Your task to perform on an android device: How much does a 3 bedroom apartment rent for in Chicago? Image 0: 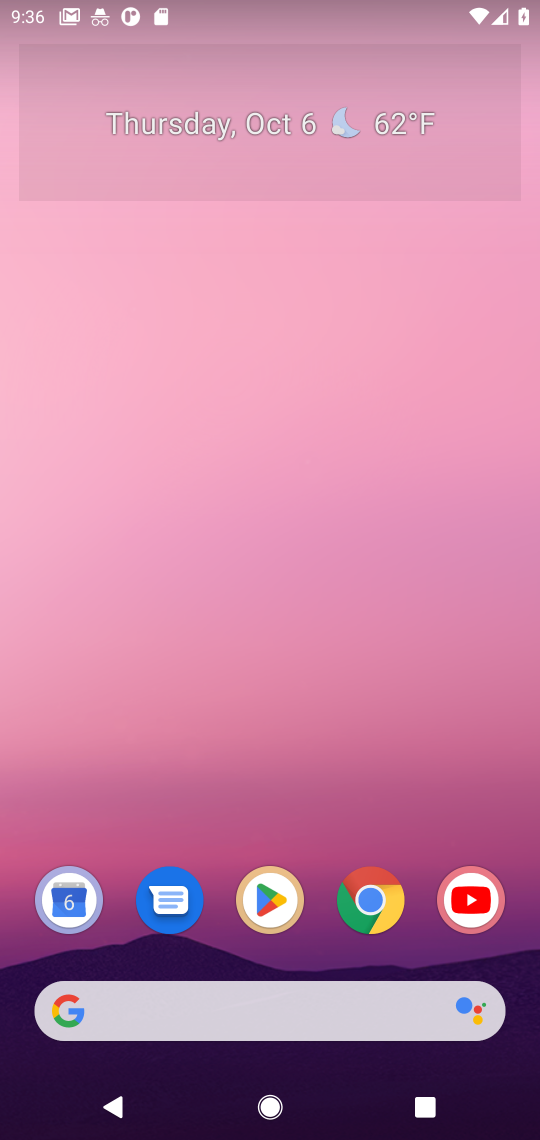
Step 0: press home button
Your task to perform on an android device: How much does a 3 bedroom apartment rent for in Chicago? Image 1: 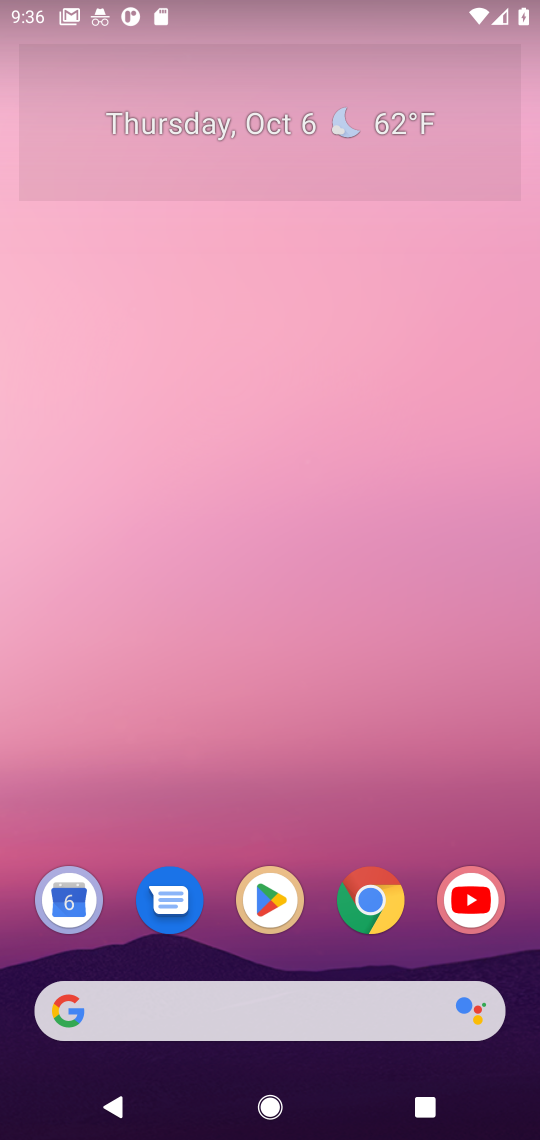
Step 1: click (252, 1021)
Your task to perform on an android device: How much does a 3 bedroom apartment rent for in Chicago? Image 2: 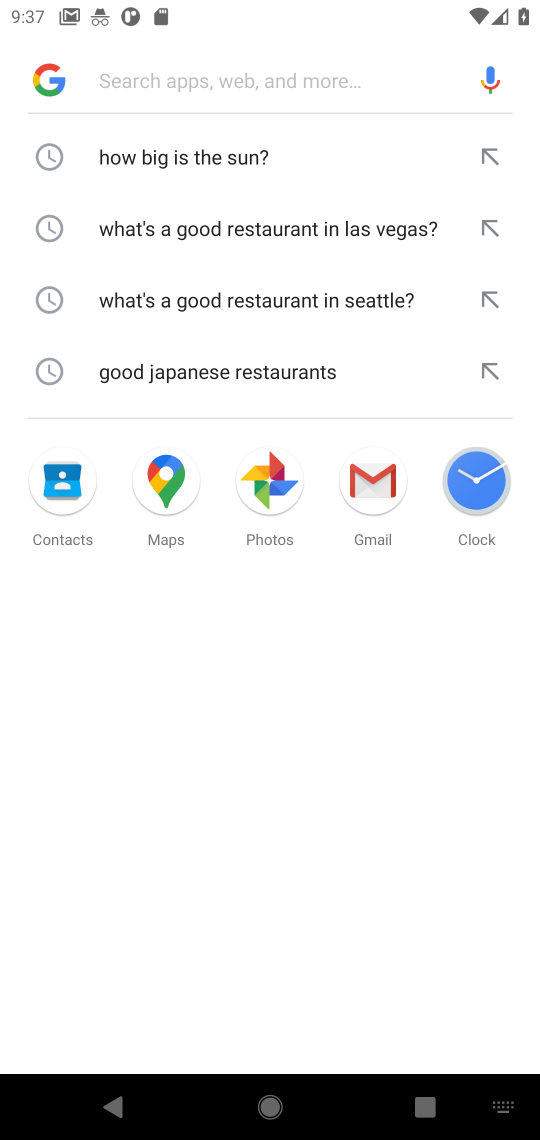
Step 2: press enter
Your task to perform on an android device: How much does a 3 bedroom apartment rent for in Chicago? Image 3: 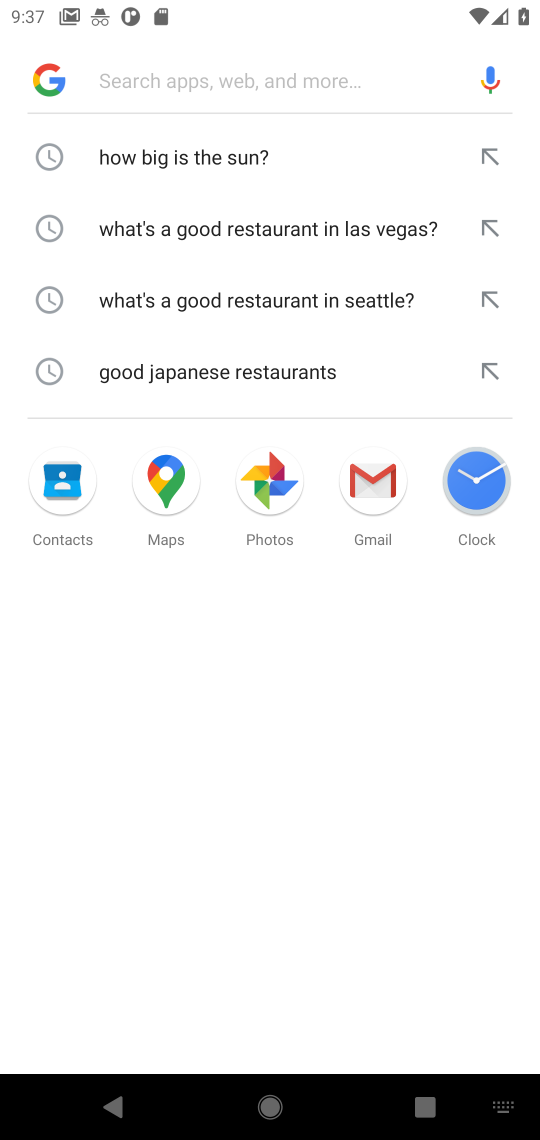
Step 3: type "How much does a 3 bedroom apartment rent for in Chicago?"
Your task to perform on an android device: How much does a 3 bedroom apartment rent for in Chicago? Image 4: 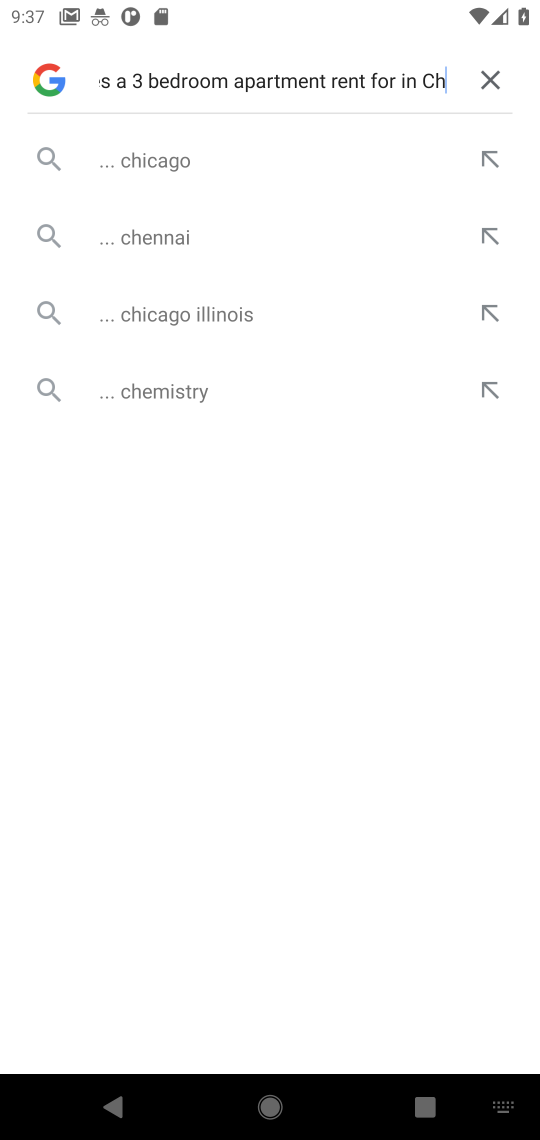
Step 4: press enter
Your task to perform on an android device: How much does a 3 bedroom apartment rent for in Chicago? Image 5: 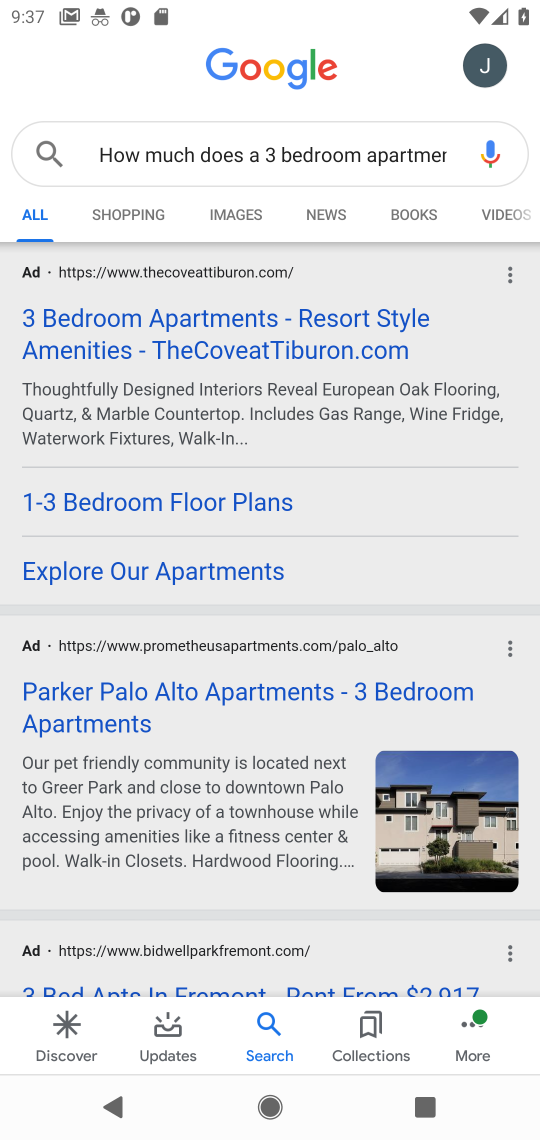
Step 5: drag from (253, 826) to (280, 579)
Your task to perform on an android device: How much does a 3 bedroom apartment rent for in Chicago? Image 6: 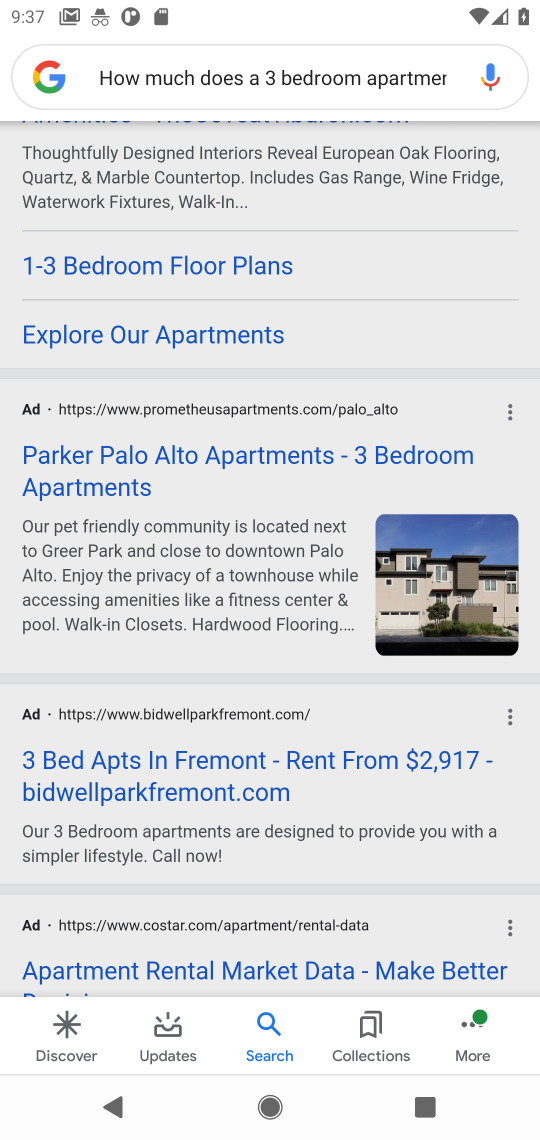
Step 6: drag from (240, 802) to (245, 520)
Your task to perform on an android device: How much does a 3 bedroom apartment rent for in Chicago? Image 7: 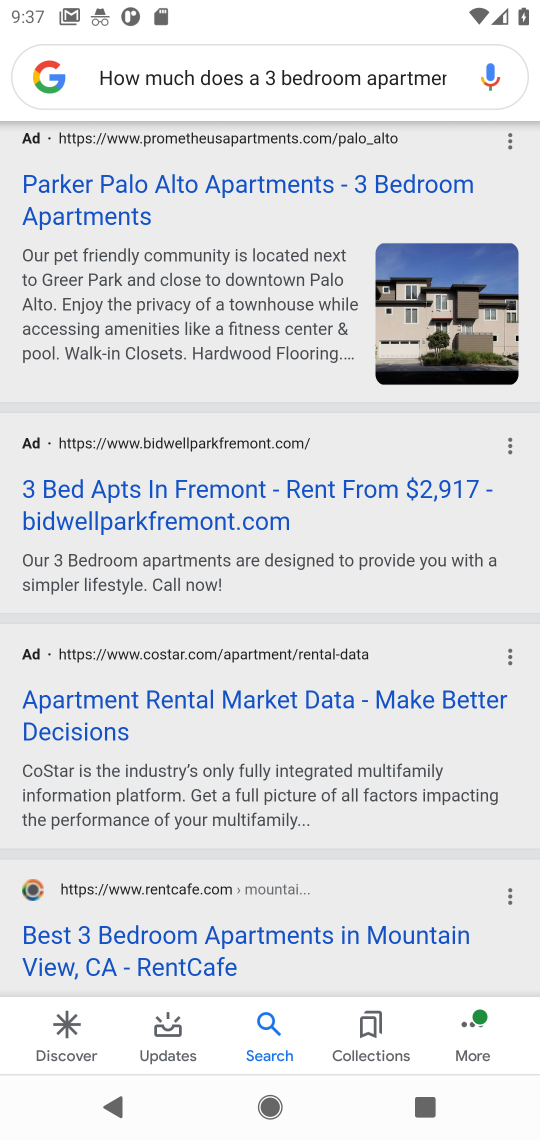
Step 7: drag from (275, 870) to (279, 647)
Your task to perform on an android device: How much does a 3 bedroom apartment rent for in Chicago? Image 8: 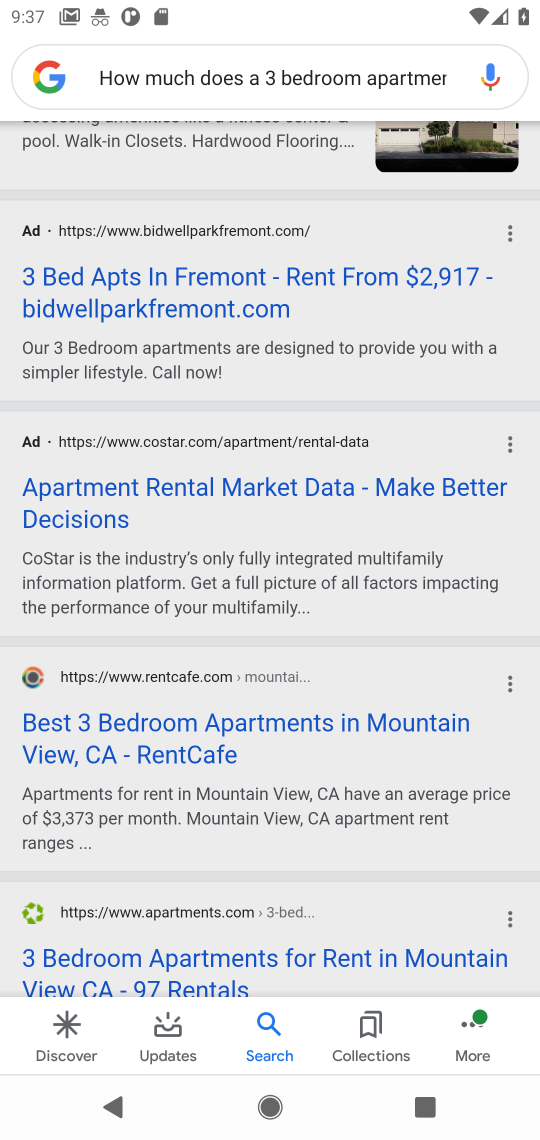
Step 8: drag from (327, 922) to (326, 581)
Your task to perform on an android device: How much does a 3 bedroom apartment rent for in Chicago? Image 9: 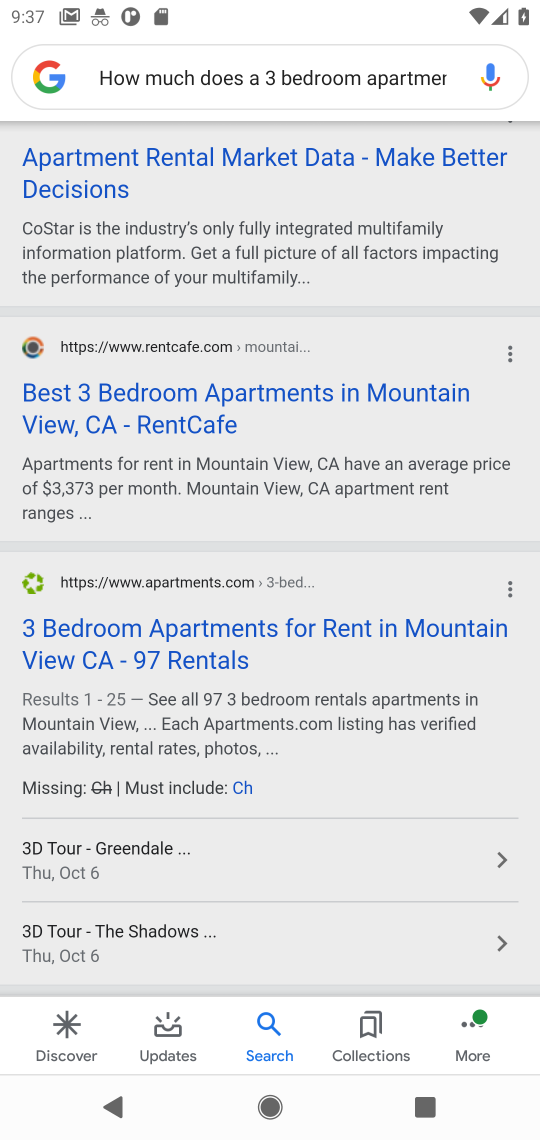
Step 9: drag from (354, 838) to (340, 384)
Your task to perform on an android device: How much does a 3 bedroom apartment rent for in Chicago? Image 10: 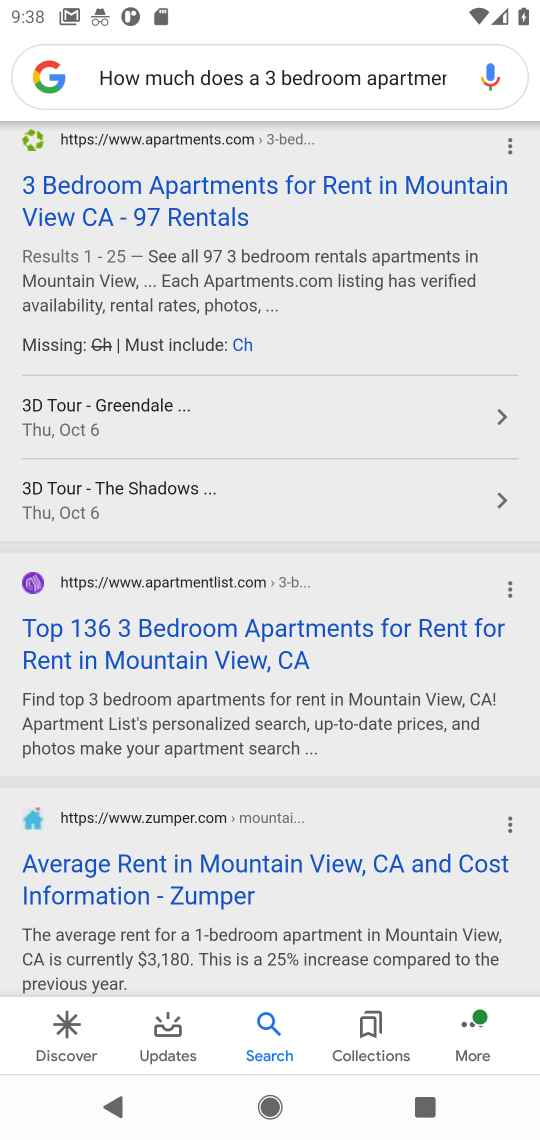
Step 10: drag from (325, 894) to (352, 599)
Your task to perform on an android device: How much does a 3 bedroom apartment rent for in Chicago? Image 11: 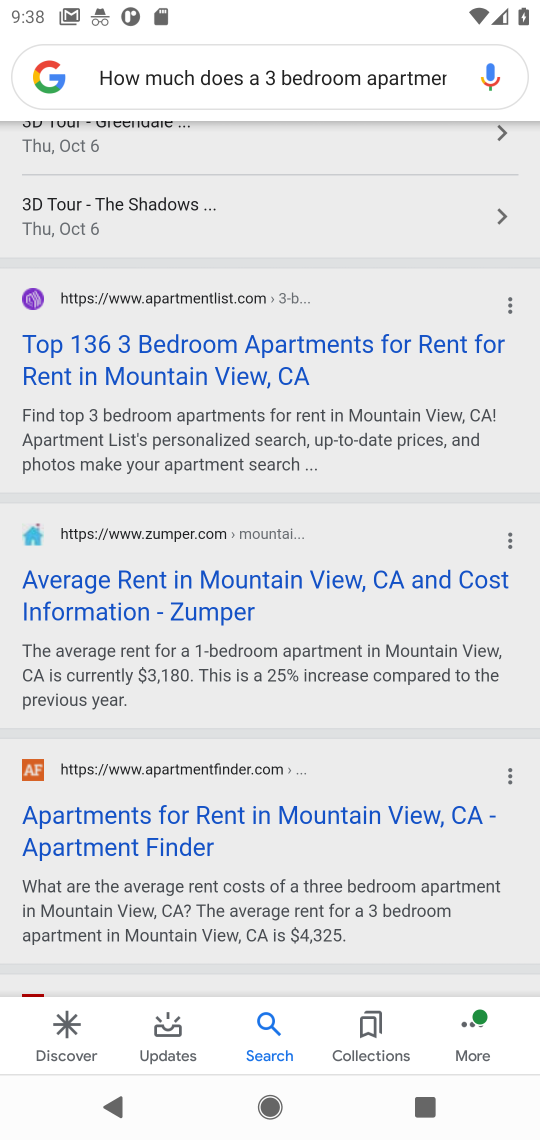
Step 11: drag from (331, 872) to (325, 545)
Your task to perform on an android device: How much does a 3 bedroom apartment rent for in Chicago? Image 12: 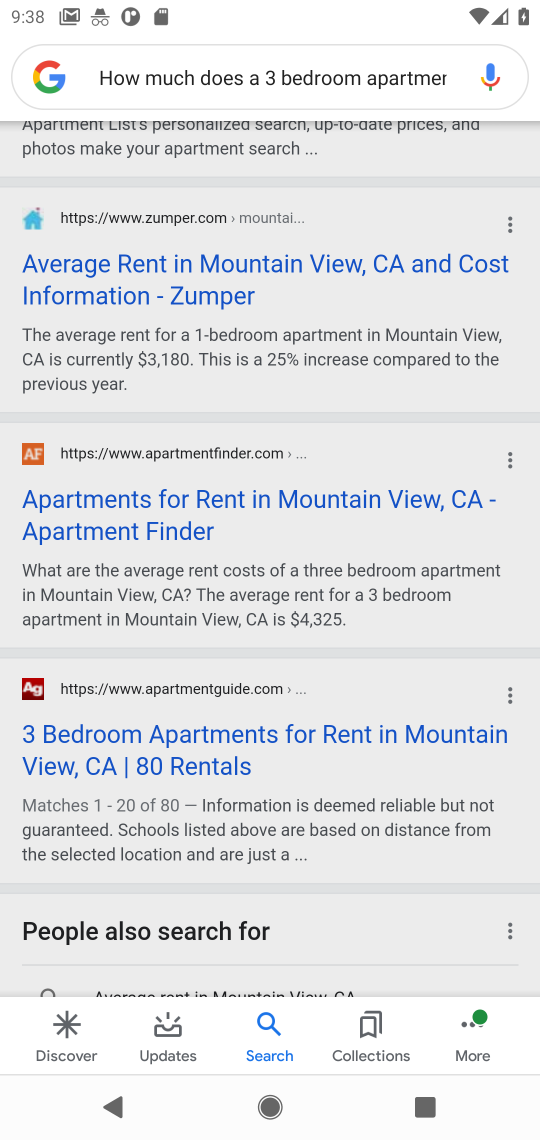
Step 12: drag from (293, 838) to (277, 529)
Your task to perform on an android device: How much does a 3 bedroom apartment rent for in Chicago? Image 13: 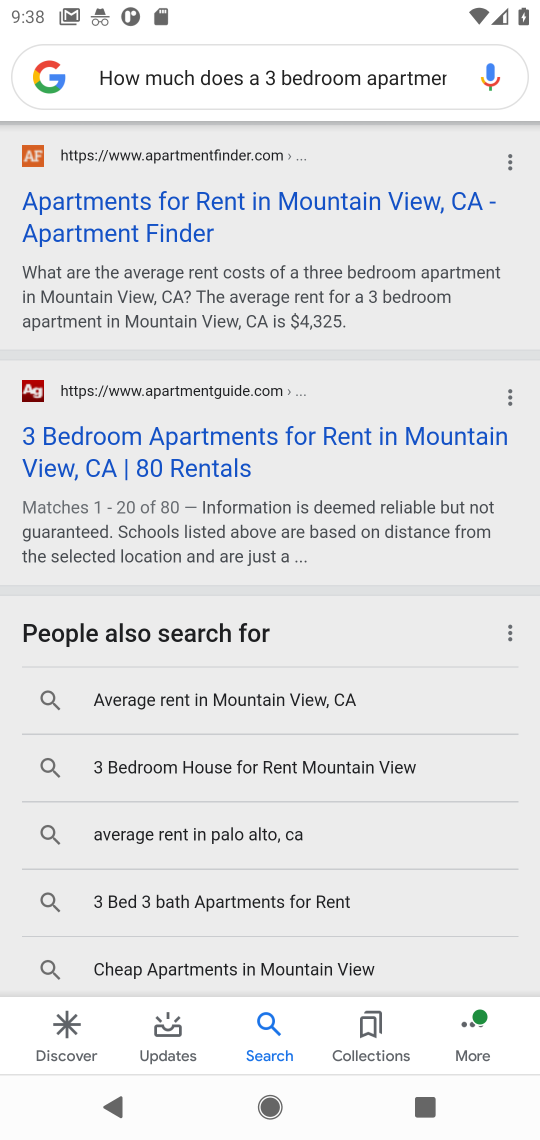
Step 13: click (320, 447)
Your task to perform on an android device: How much does a 3 bedroom apartment rent for in Chicago? Image 14: 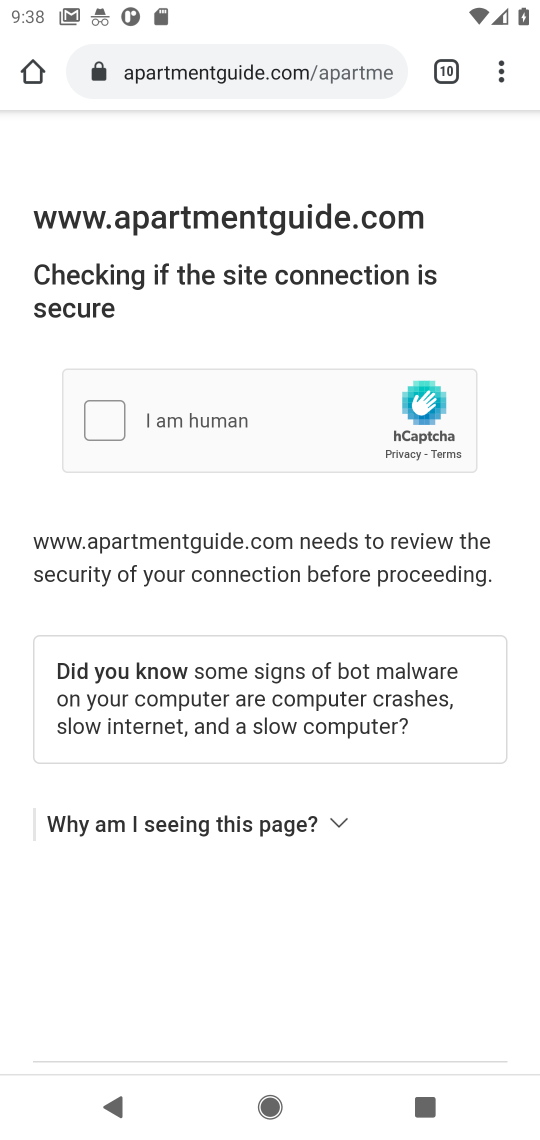
Step 14: press back button
Your task to perform on an android device: How much does a 3 bedroom apartment rent for in Chicago? Image 15: 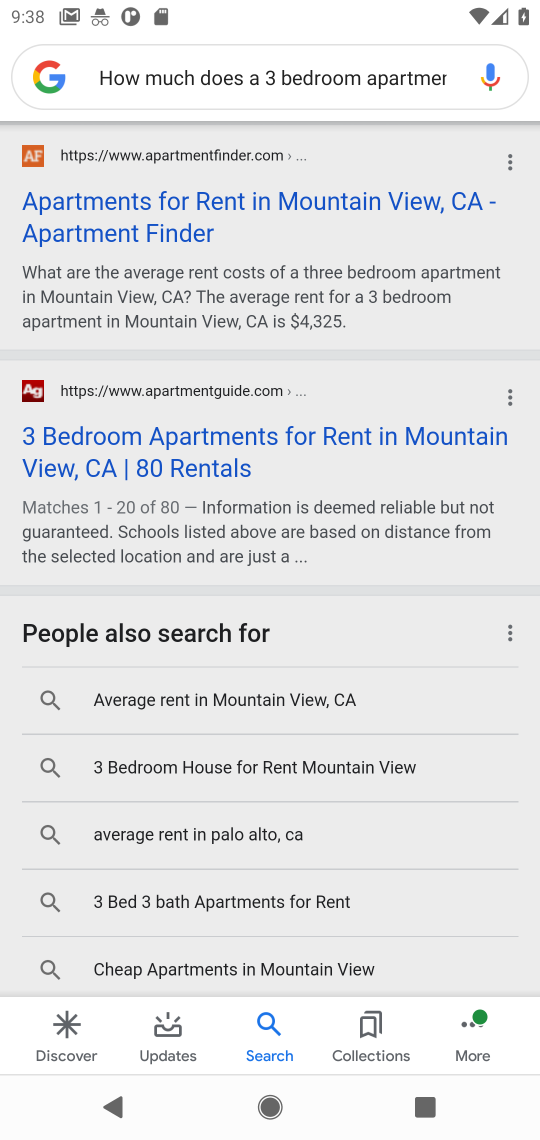
Step 15: drag from (303, 209) to (282, 668)
Your task to perform on an android device: How much does a 3 bedroom apartment rent for in Chicago? Image 16: 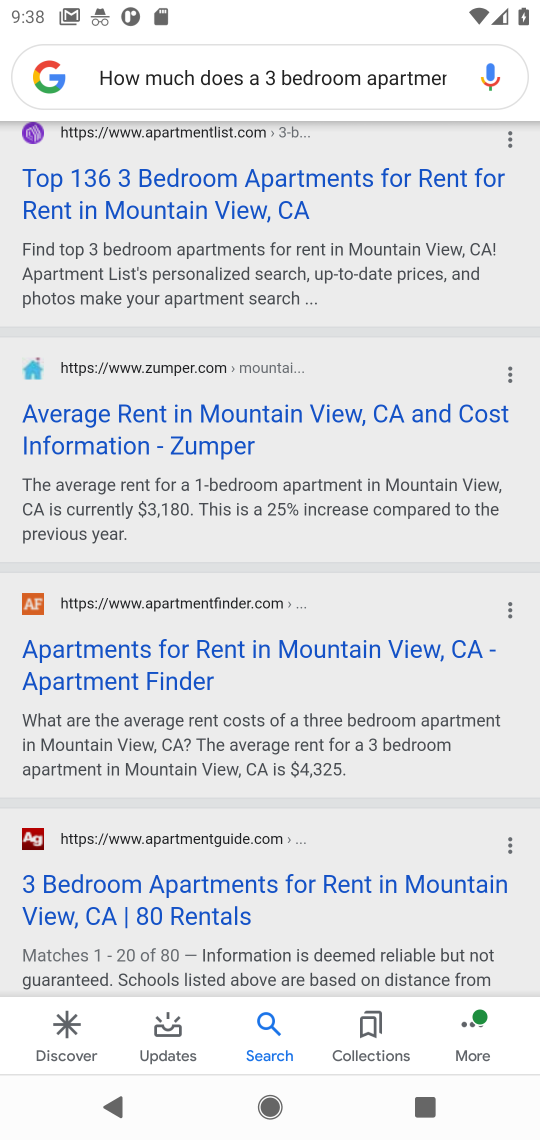
Step 16: click (268, 407)
Your task to perform on an android device: How much does a 3 bedroom apartment rent for in Chicago? Image 17: 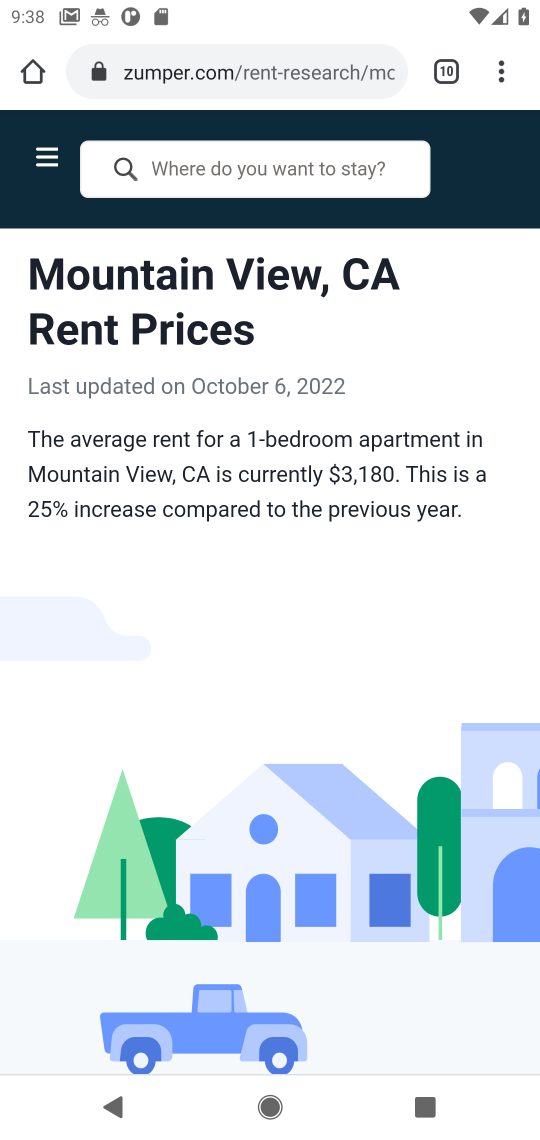
Step 17: task complete